Your task to perform on an android device: Do I have any events today? Image 0: 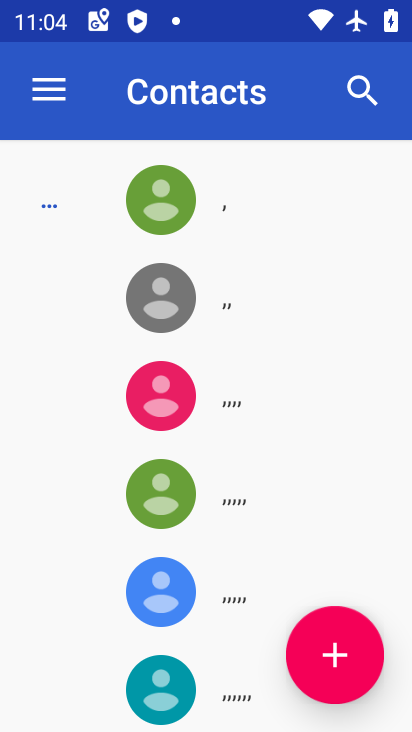
Step 0: press home button
Your task to perform on an android device: Do I have any events today? Image 1: 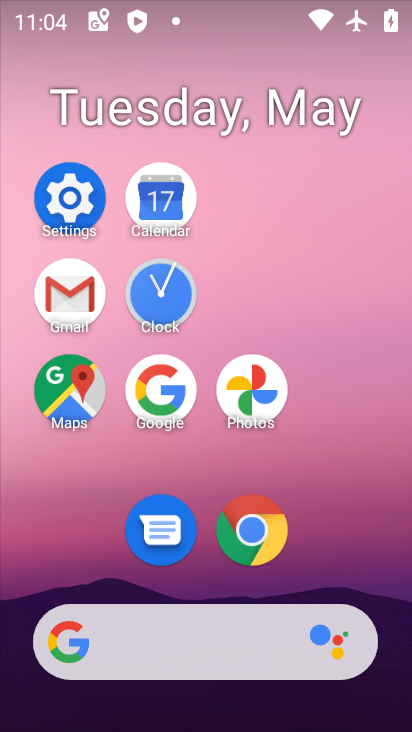
Step 1: click (163, 199)
Your task to perform on an android device: Do I have any events today? Image 2: 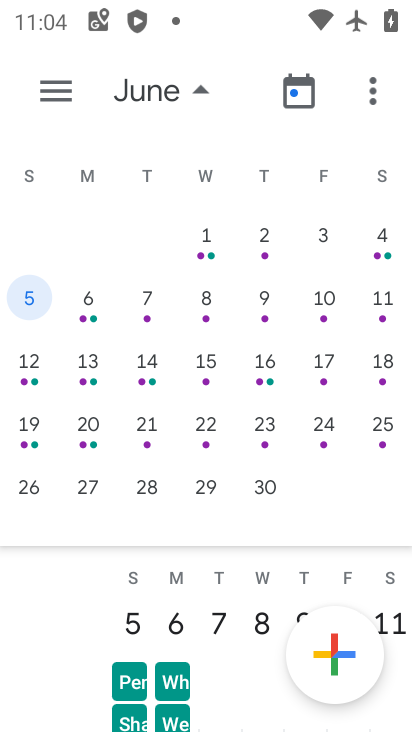
Step 2: click (61, 82)
Your task to perform on an android device: Do I have any events today? Image 3: 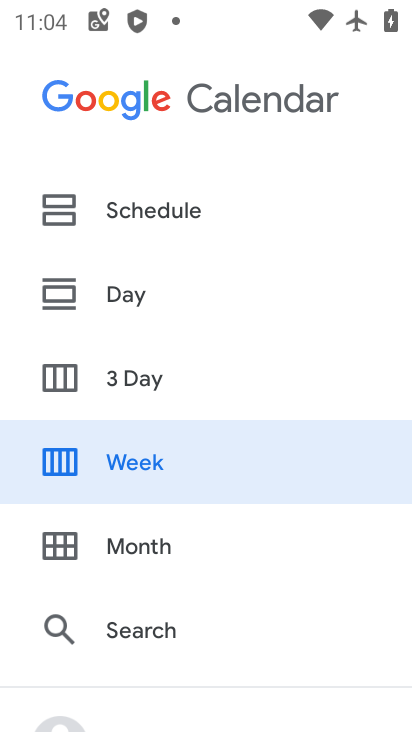
Step 3: click (181, 277)
Your task to perform on an android device: Do I have any events today? Image 4: 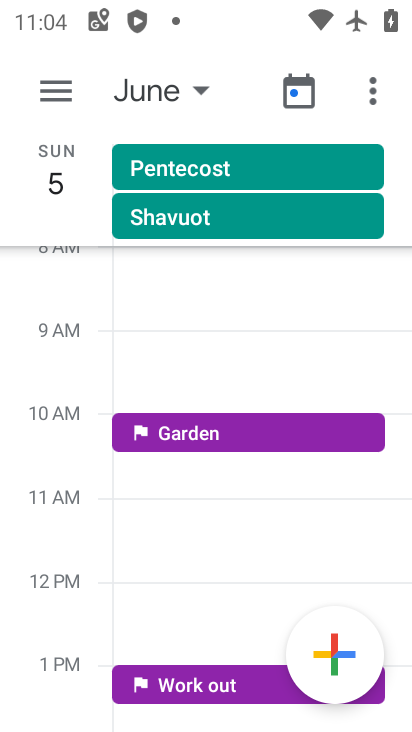
Step 4: click (192, 103)
Your task to perform on an android device: Do I have any events today? Image 5: 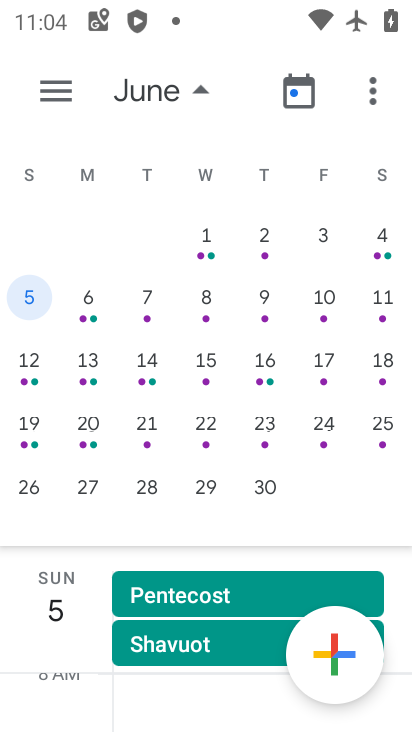
Step 5: drag from (12, 380) to (403, 392)
Your task to perform on an android device: Do I have any events today? Image 6: 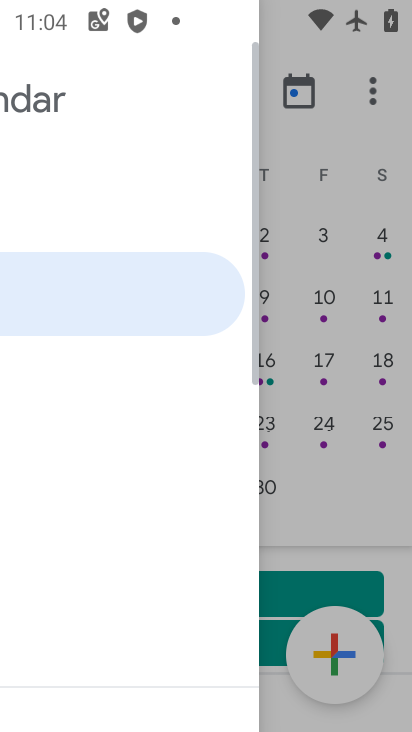
Step 6: click (330, 470)
Your task to perform on an android device: Do I have any events today? Image 7: 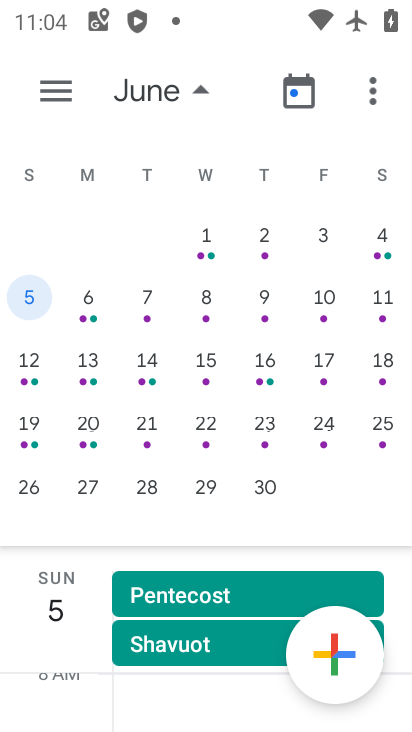
Step 7: drag from (96, 369) to (387, 373)
Your task to perform on an android device: Do I have any events today? Image 8: 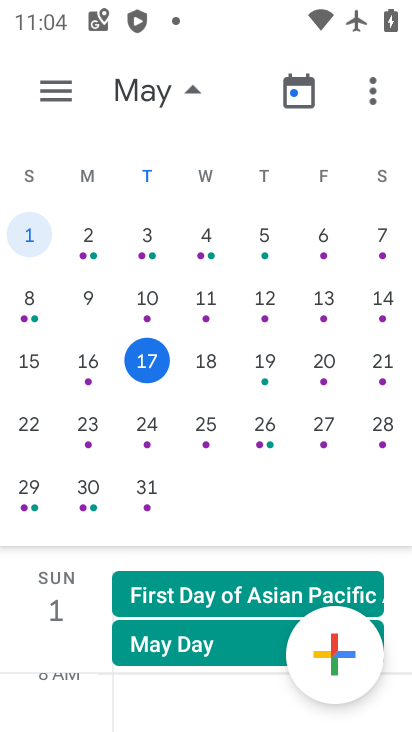
Step 8: click (211, 356)
Your task to perform on an android device: Do I have any events today? Image 9: 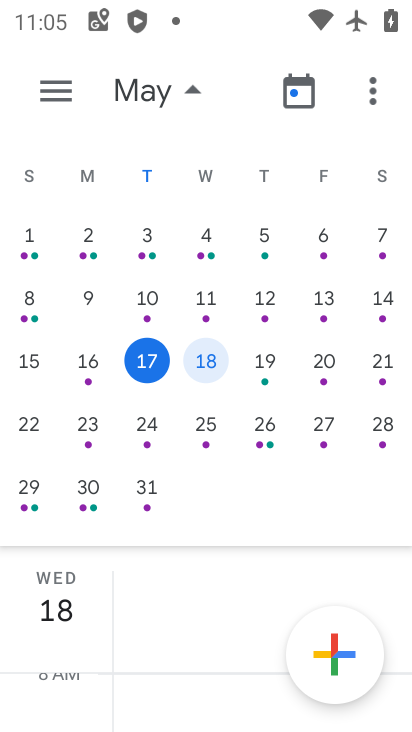
Step 9: click (81, 584)
Your task to perform on an android device: Do I have any events today? Image 10: 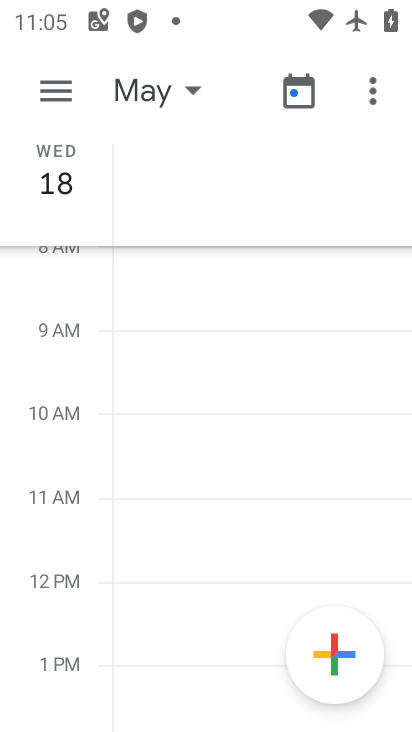
Step 10: task complete